Your task to perform on an android device: turn off location Image 0: 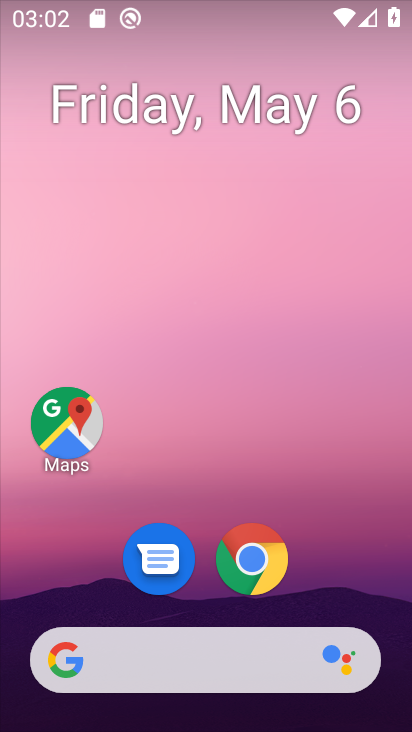
Step 0: drag from (328, 605) to (305, 0)
Your task to perform on an android device: turn off location Image 1: 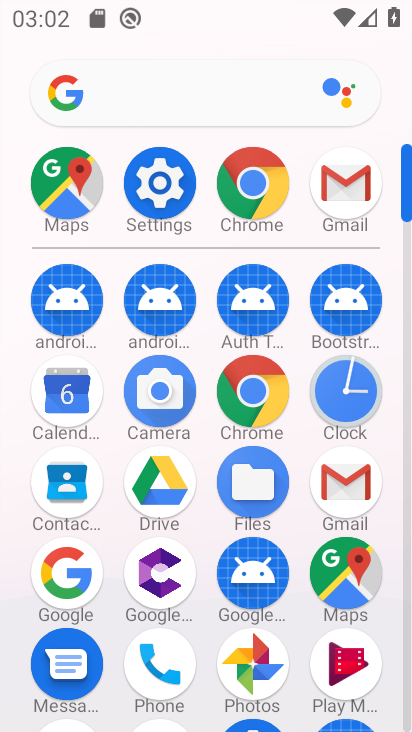
Step 1: click (154, 181)
Your task to perform on an android device: turn off location Image 2: 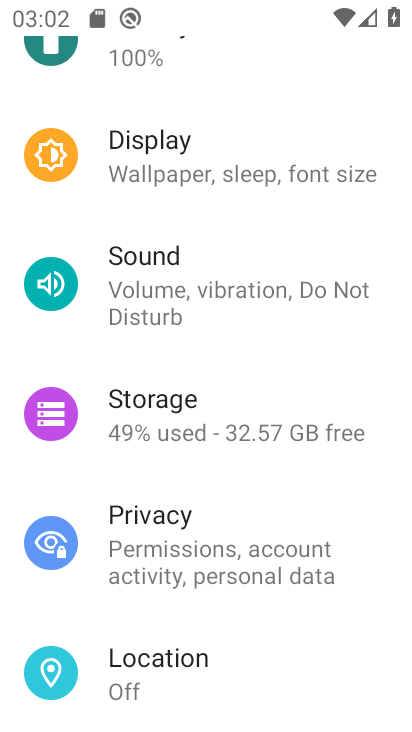
Step 2: click (167, 691)
Your task to perform on an android device: turn off location Image 3: 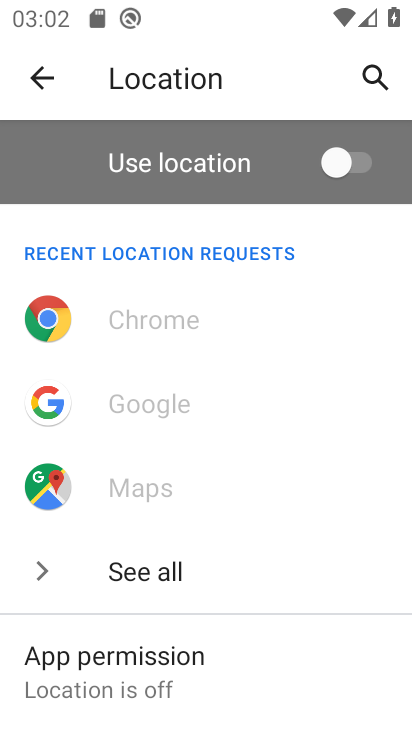
Step 3: task complete